Your task to perform on an android device: star an email in the gmail app Image 0: 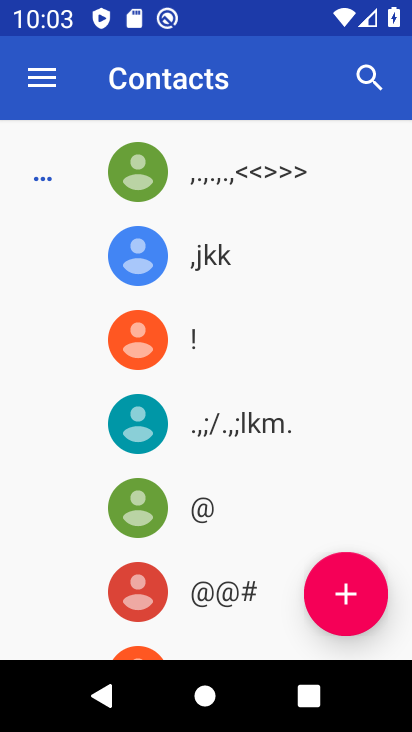
Step 0: press back button
Your task to perform on an android device: star an email in the gmail app Image 1: 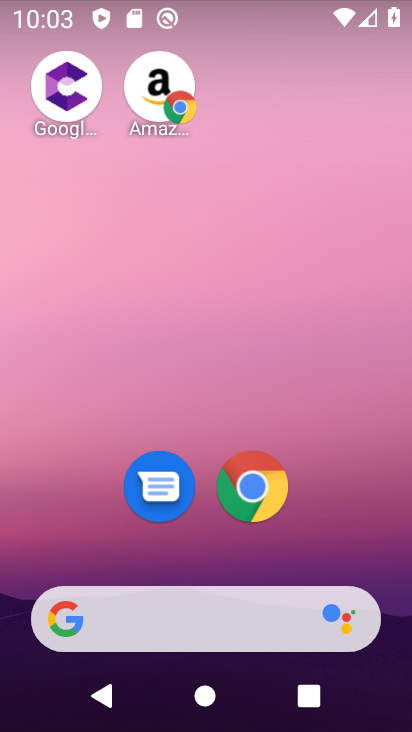
Step 1: drag from (337, 497) to (293, 67)
Your task to perform on an android device: star an email in the gmail app Image 2: 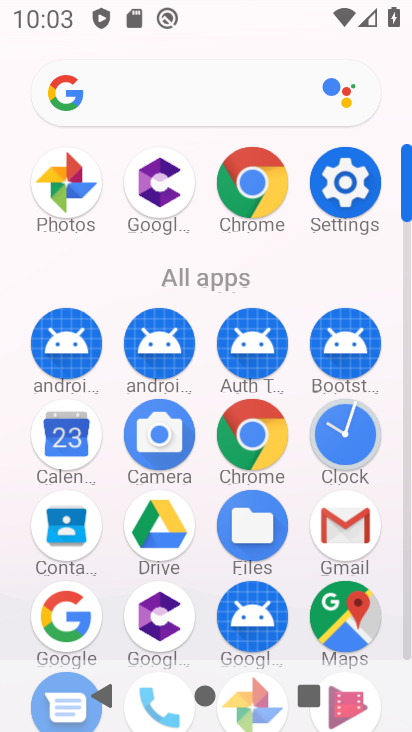
Step 2: drag from (203, 517) to (208, 359)
Your task to perform on an android device: star an email in the gmail app Image 3: 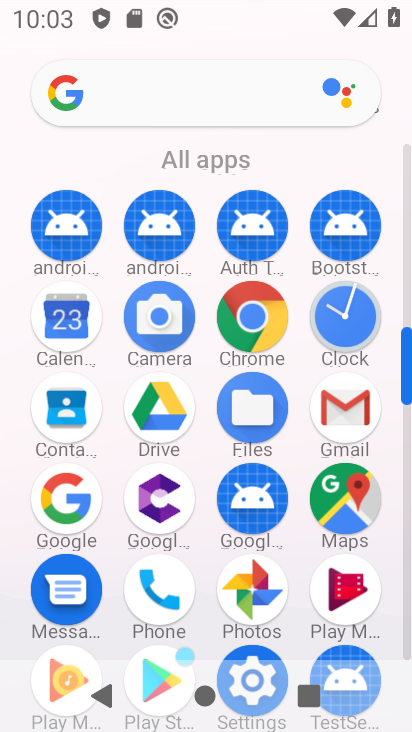
Step 3: click (346, 408)
Your task to perform on an android device: star an email in the gmail app Image 4: 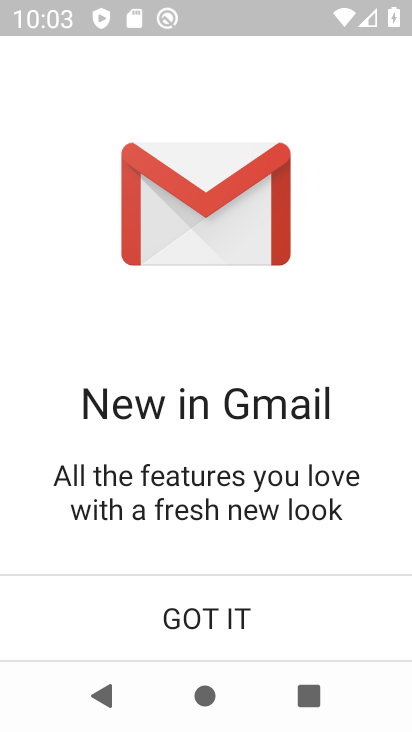
Step 4: click (200, 608)
Your task to perform on an android device: star an email in the gmail app Image 5: 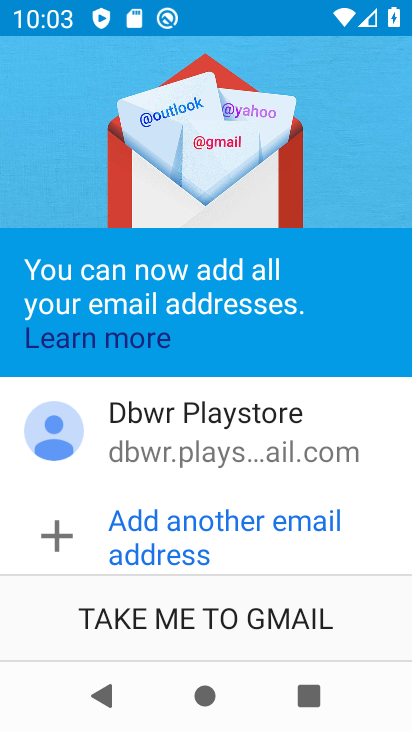
Step 5: click (200, 608)
Your task to perform on an android device: star an email in the gmail app Image 6: 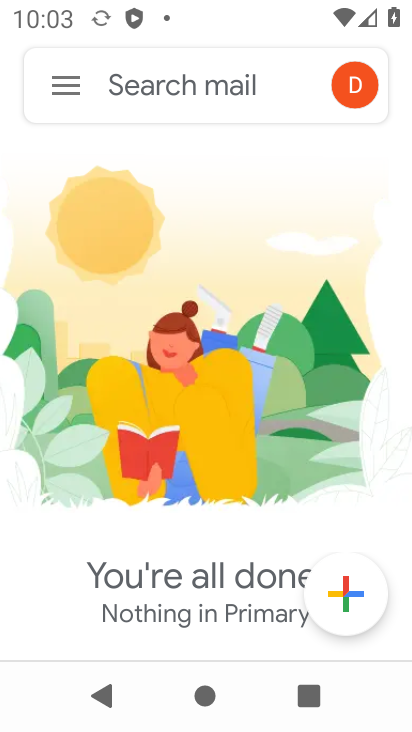
Step 6: click (51, 97)
Your task to perform on an android device: star an email in the gmail app Image 7: 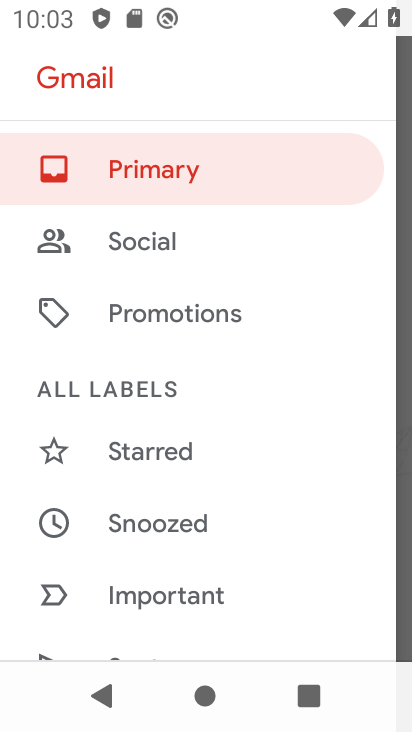
Step 7: drag from (199, 509) to (206, 400)
Your task to perform on an android device: star an email in the gmail app Image 8: 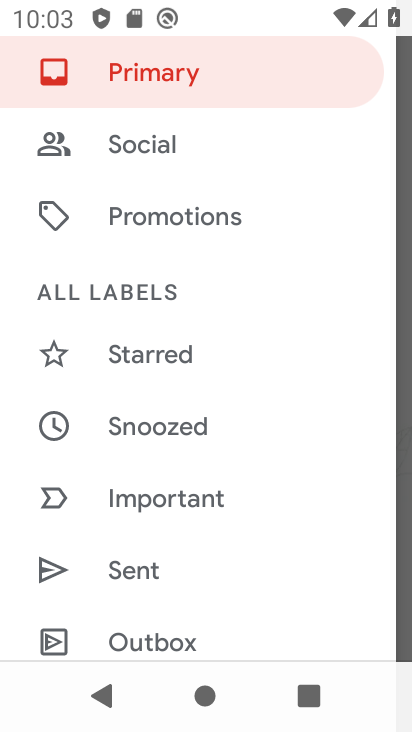
Step 8: drag from (153, 546) to (204, 473)
Your task to perform on an android device: star an email in the gmail app Image 9: 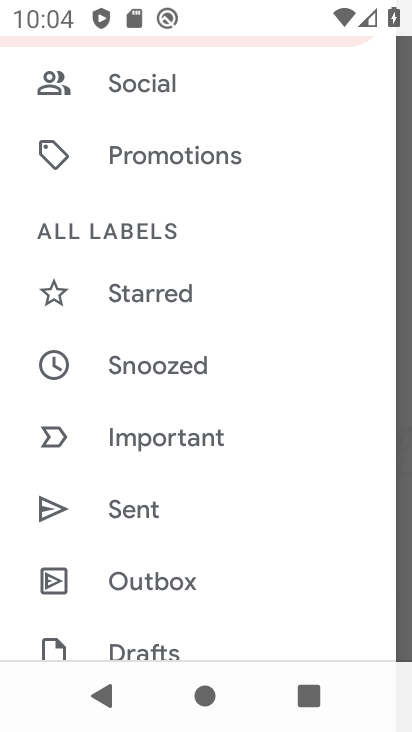
Step 9: click (174, 299)
Your task to perform on an android device: star an email in the gmail app Image 10: 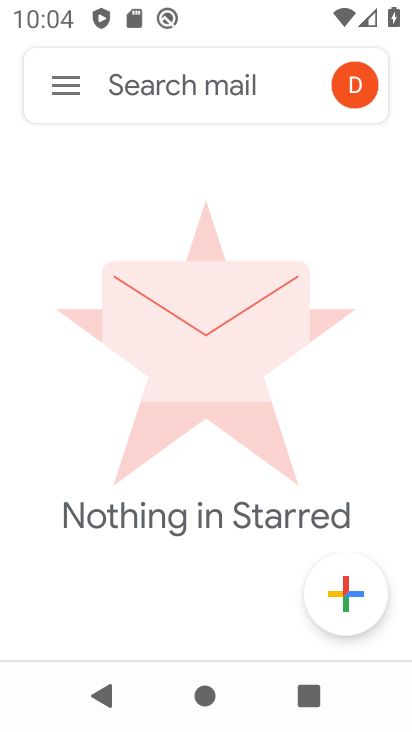
Step 10: click (73, 86)
Your task to perform on an android device: star an email in the gmail app Image 11: 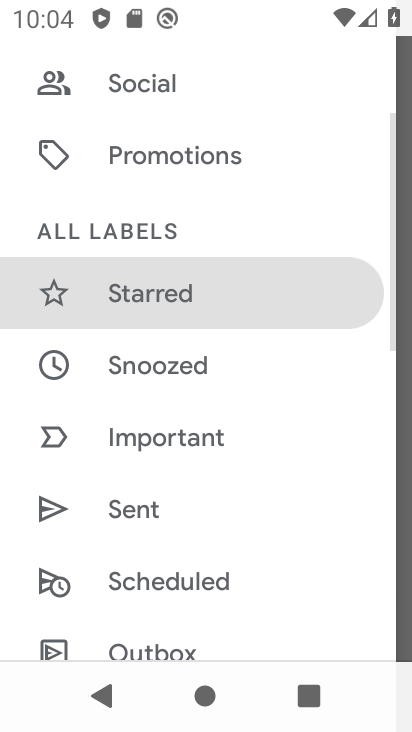
Step 11: drag from (125, 483) to (205, 395)
Your task to perform on an android device: star an email in the gmail app Image 12: 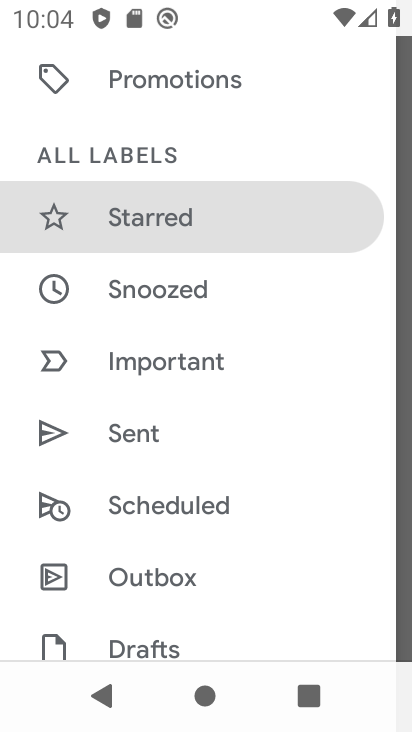
Step 12: drag from (158, 555) to (217, 473)
Your task to perform on an android device: star an email in the gmail app Image 13: 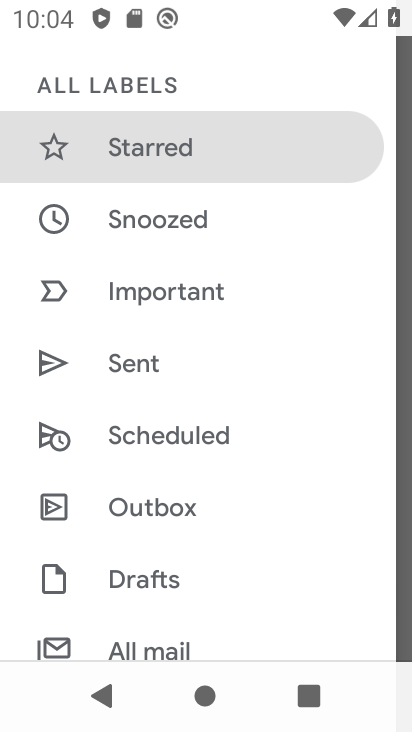
Step 13: drag from (161, 539) to (253, 430)
Your task to perform on an android device: star an email in the gmail app Image 14: 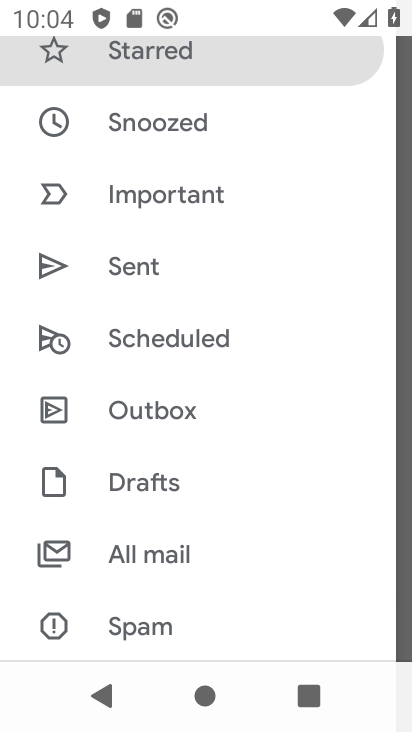
Step 14: click (169, 555)
Your task to perform on an android device: star an email in the gmail app Image 15: 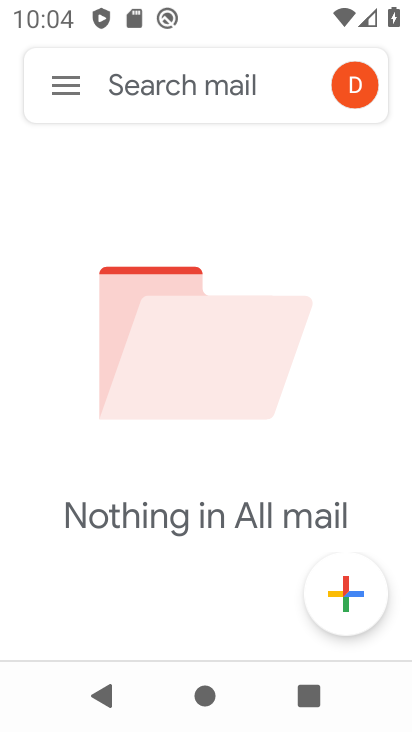
Step 15: task complete